Your task to perform on an android device: Open Yahoo.com Image 0: 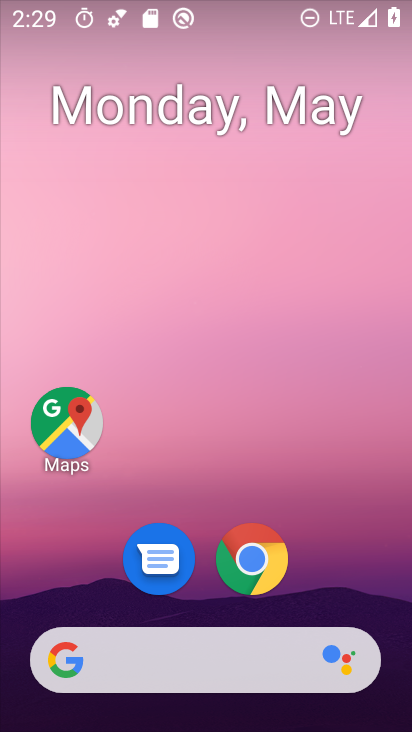
Step 0: click (256, 568)
Your task to perform on an android device: Open Yahoo.com Image 1: 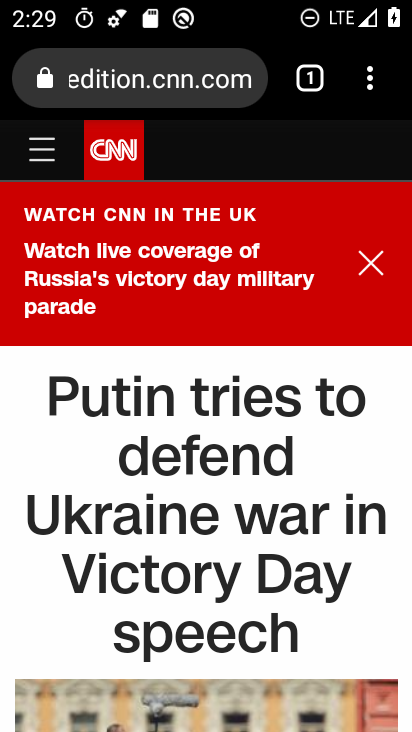
Step 1: click (130, 79)
Your task to perform on an android device: Open Yahoo.com Image 2: 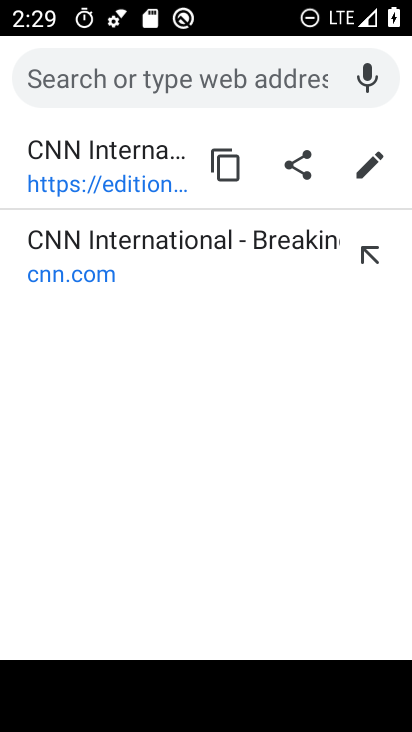
Step 2: type "yahoo.com"
Your task to perform on an android device: Open Yahoo.com Image 3: 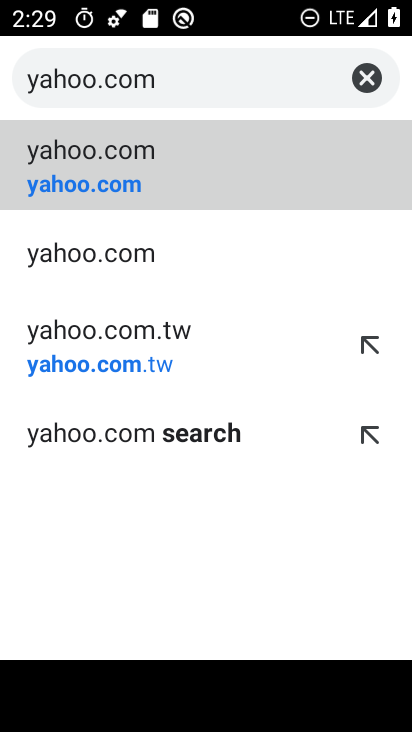
Step 3: click (79, 185)
Your task to perform on an android device: Open Yahoo.com Image 4: 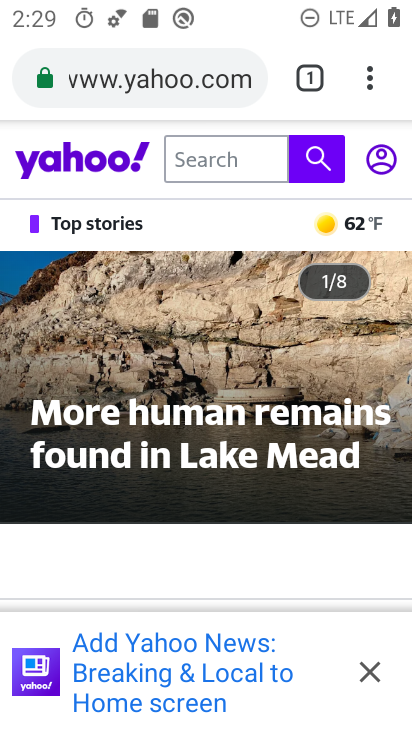
Step 4: task complete